Your task to perform on an android device: add a contact Image 0: 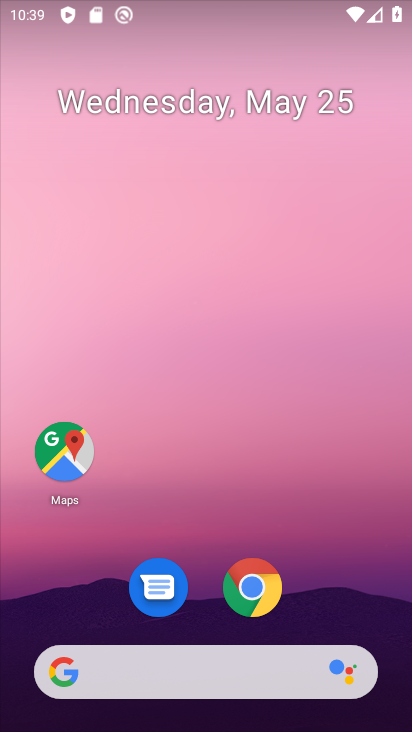
Step 0: drag from (326, 581) to (260, 35)
Your task to perform on an android device: add a contact Image 1: 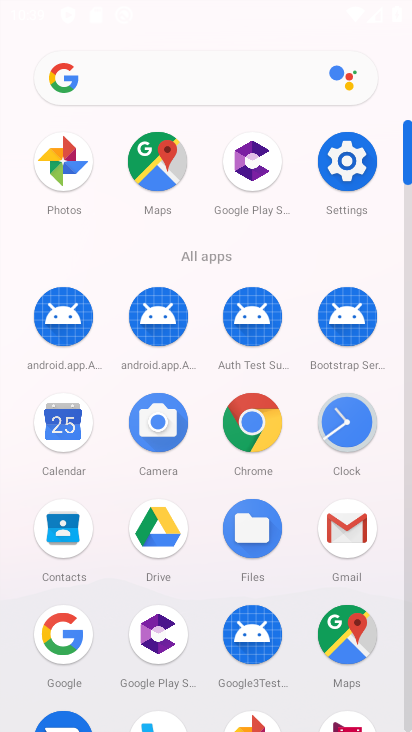
Step 1: drag from (20, 584) to (20, 341)
Your task to perform on an android device: add a contact Image 2: 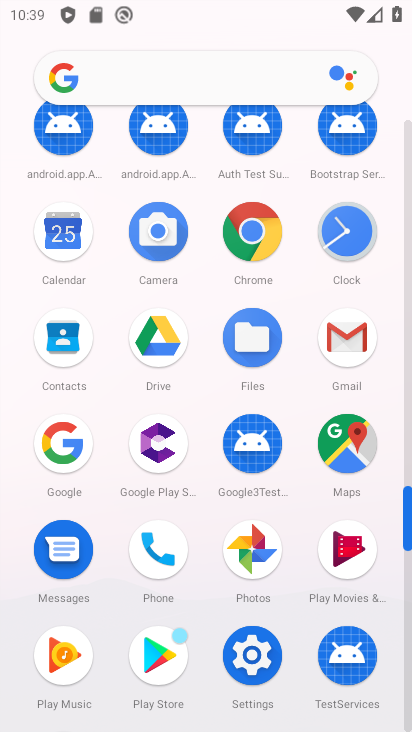
Step 2: click (59, 331)
Your task to perform on an android device: add a contact Image 3: 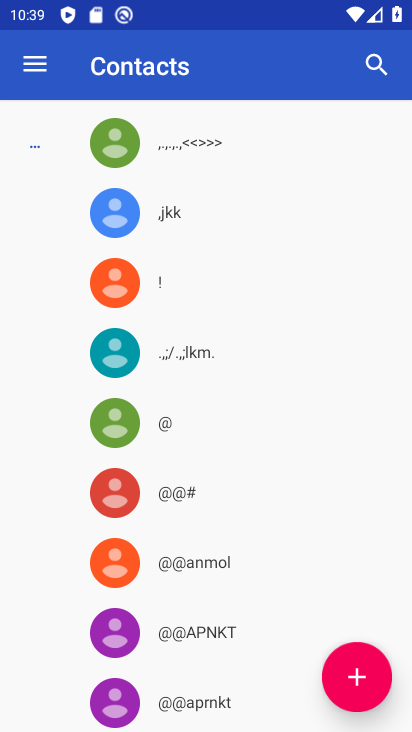
Step 3: task complete